Your task to perform on an android device: choose inbox layout in the gmail app Image 0: 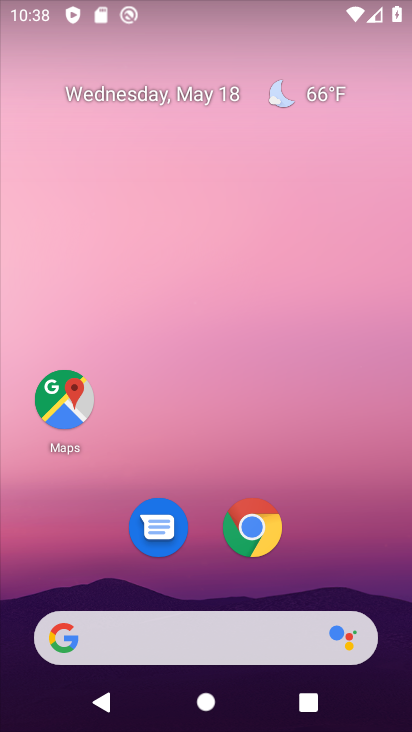
Step 0: drag from (379, 546) to (278, 197)
Your task to perform on an android device: choose inbox layout in the gmail app Image 1: 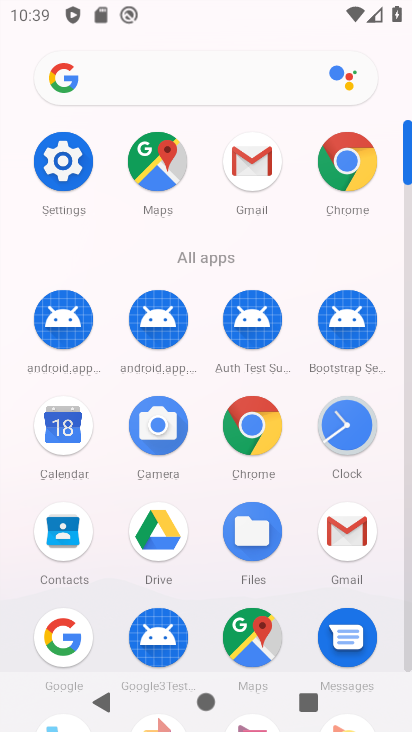
Step 1: click (267, 174)
Your task to perform on an android device: choose inbox layout in the gmail app Image 2: 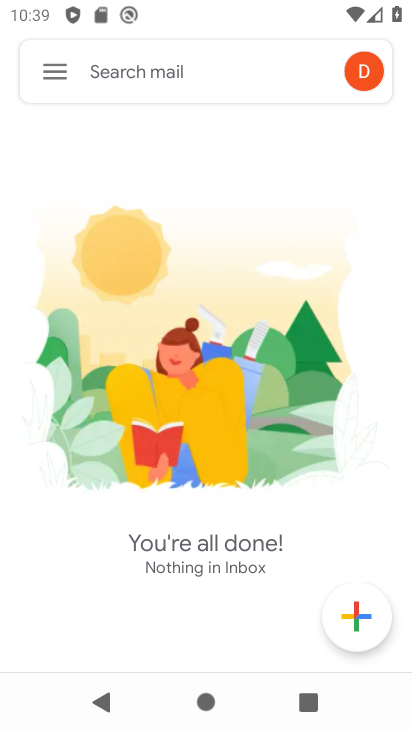
Step 2: click (43, 80)
Your task to perform on an android device: choose inbox layout in the gmail app Image 3: 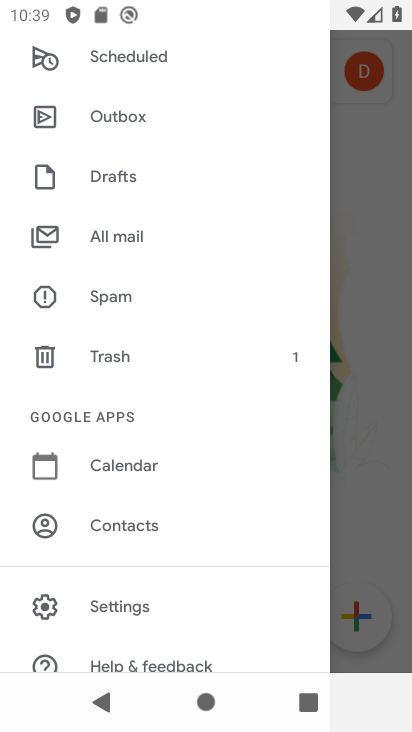
Step 3: click (225, 607)
Your task to perform on an android device: choose inbox layout in the gmail app Image 4: 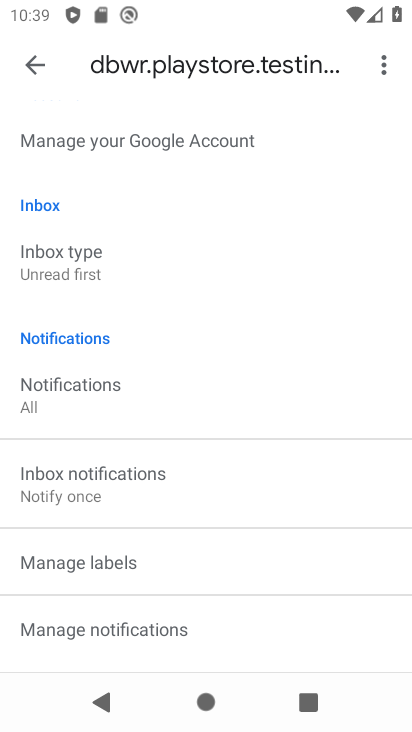
Step 4: click (170, 260)
Your task to perform on an android device: choose inbox layout in the gmail app Image 5: 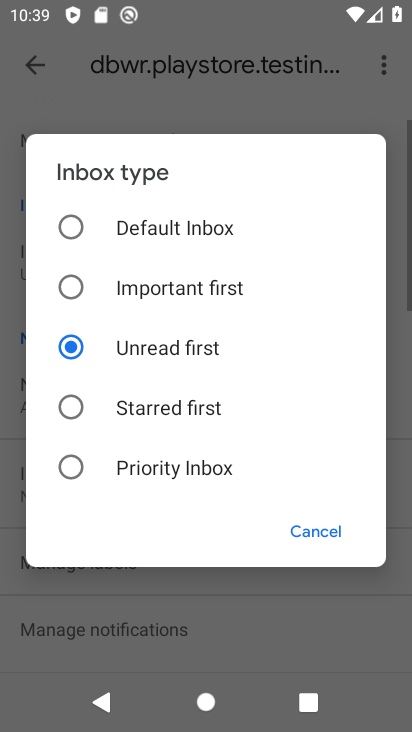
Step 5: click (192, 288)
Your task to perform on an android device: choose inbox layout in the gmail app Image 6: 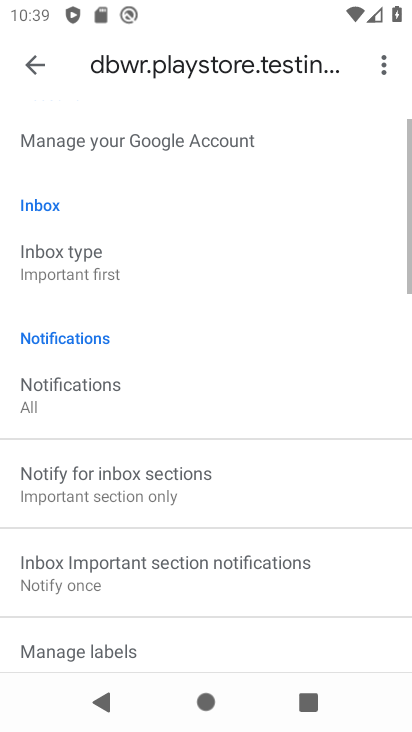
Step 6: task complete